Your task to perform on an android device: find photos in the google photos app Image 0: 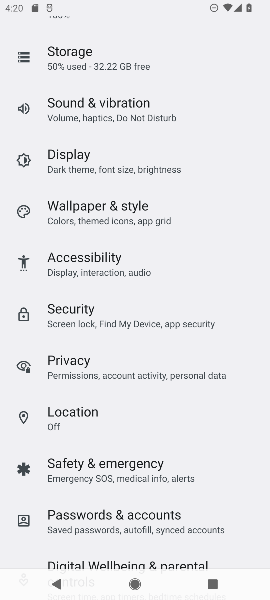
Step 0: press home button
Your task to perform on an android device: find photos in the google photos app Image 1: 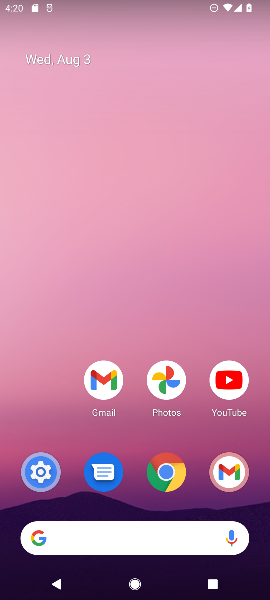
Step 1: drag from (168, 360) to (79, 34)
Your task to perform on an android device: find photos in the google photos app Image 2: 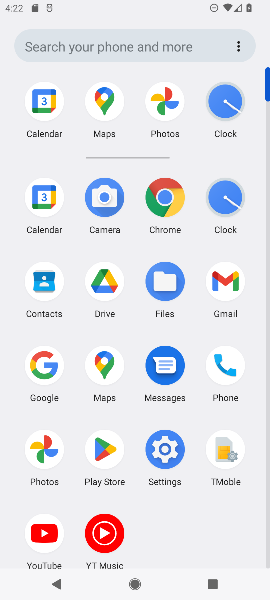
Step 2: click (49, 450)
Your task to perform on an android device: find photos in the google photos app Image 3: 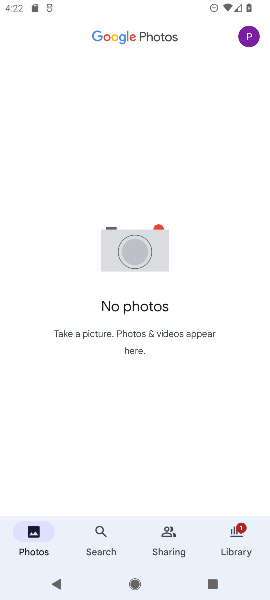
Step 3: task complete